Your task to perform on an android device: see tabs open on other devices in the chrome app Image 0: 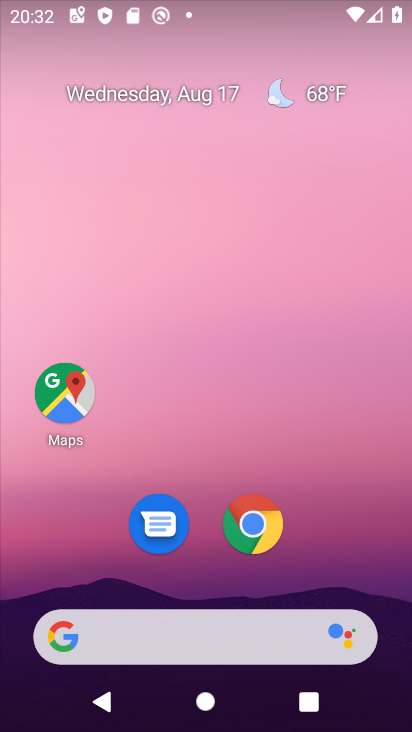
Step 0: click (257, 526)
Your task to perform on an android device: see tabs open on other devices in the chrome app Image 1: 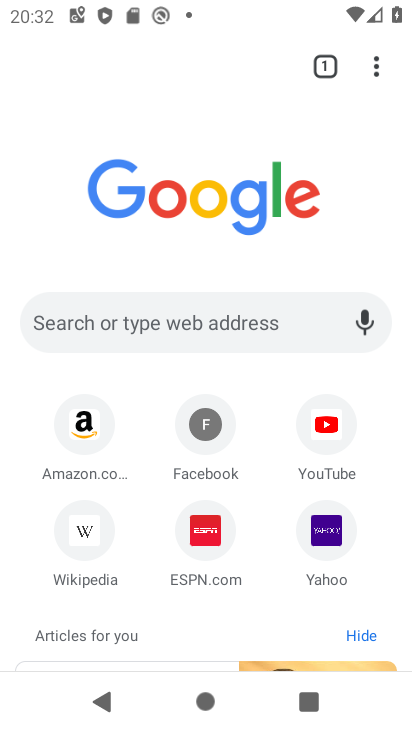
Step 1: click (378, 71)
Your task to perform on an android device: see tabs open on other devices in the chrome app Image 2: 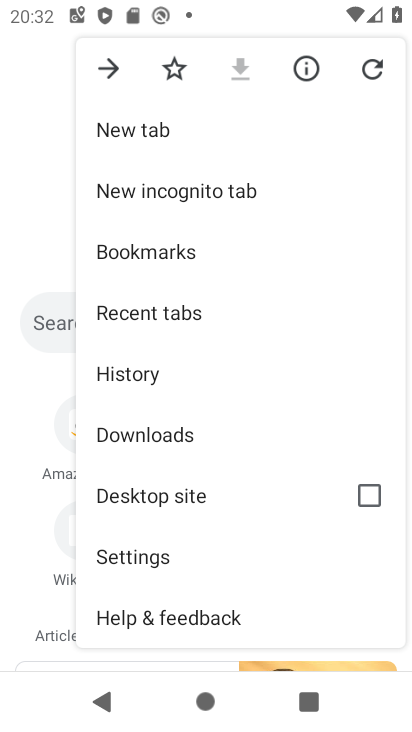
Step 2: click (193, 315)
Your task to perform on an android device: see tabs open on other devices in the chrome app Image 3: 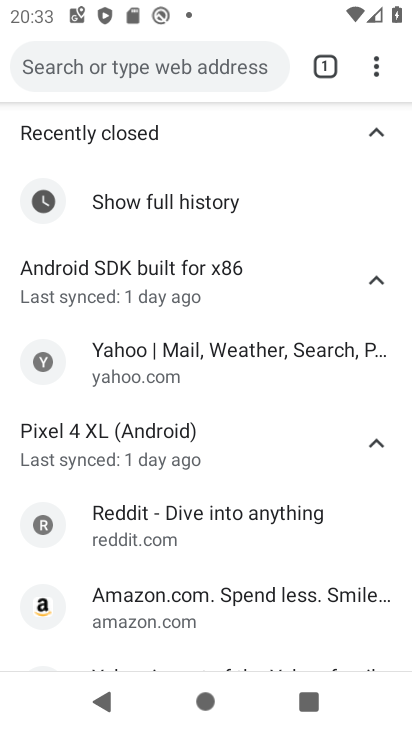
Step 3: task complete